Your task to perform on an android device: turn off sleep mode Image 0: 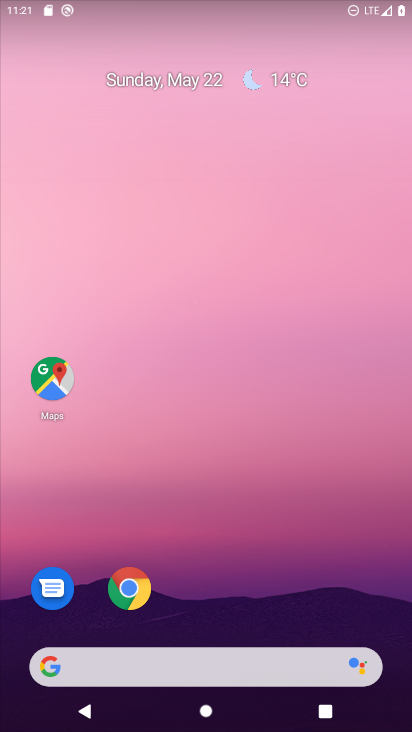
Step 0: drag from (209, 600) to (209, 242)
Your task to perform on an android device: turn off sleep mode Image 1: 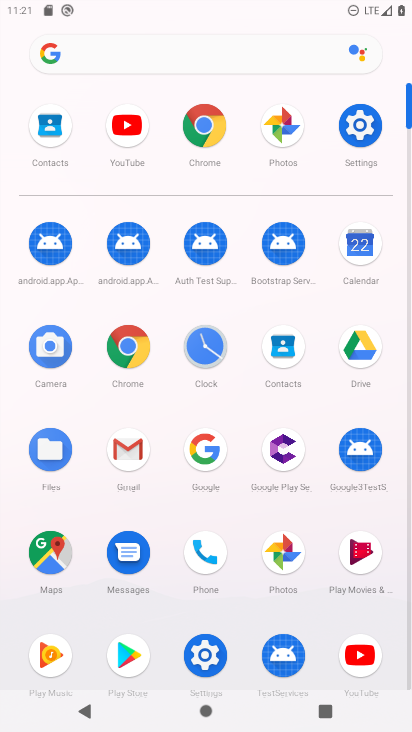
Step 1: click (347, 126)
Your task to perform on an android device: turn off sleep mode Image 2: 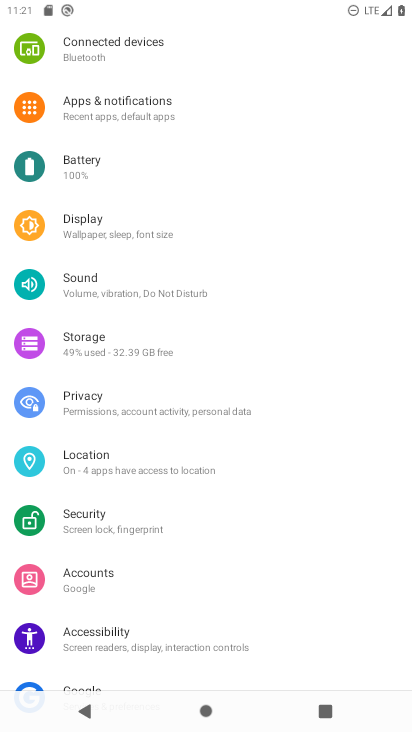
Step 2: click (127, 233)
Your task to perform on an android device: turn off sleep mode Image 3: 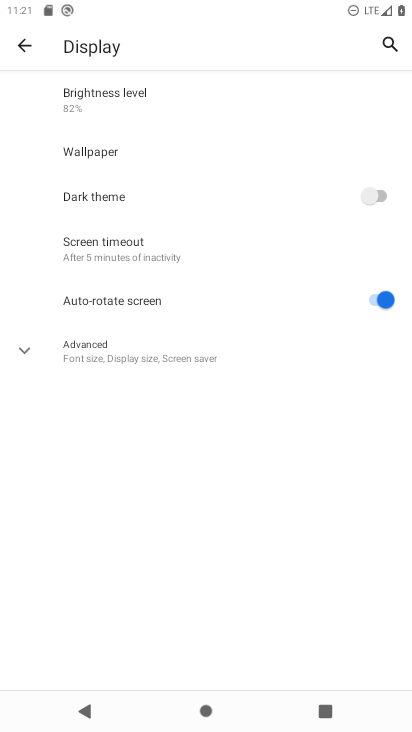
Step 3: click (128, 241)
Your task to perform on an android device: turn off sleep mode Image 4: 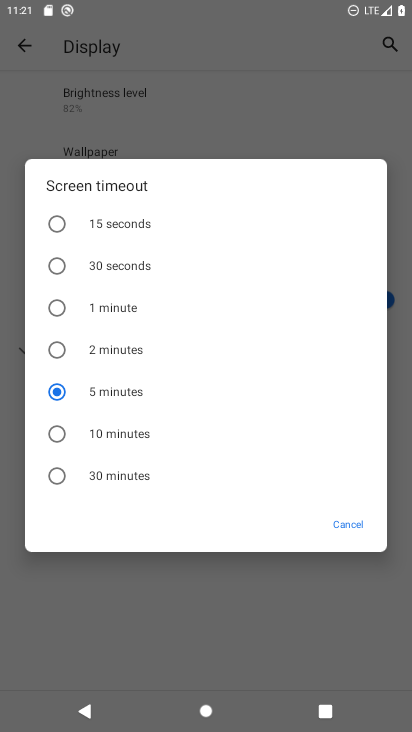
Step 4: click (127, 253)
Your task to perform on an android device: turn off sleep mode Image 5: 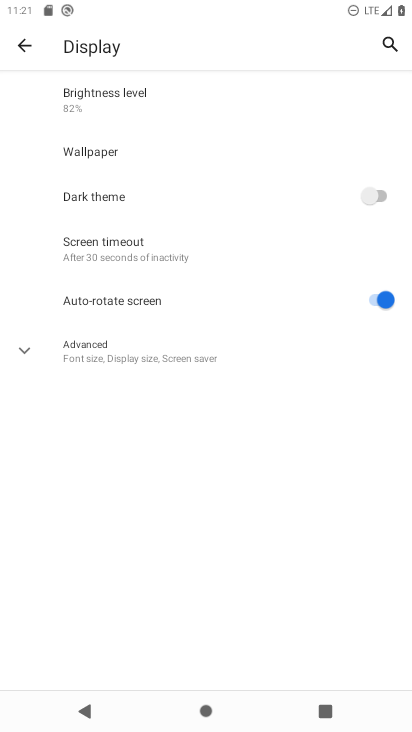
Step 5: task complete